Your task to perform on an android device: check android version Image 0: 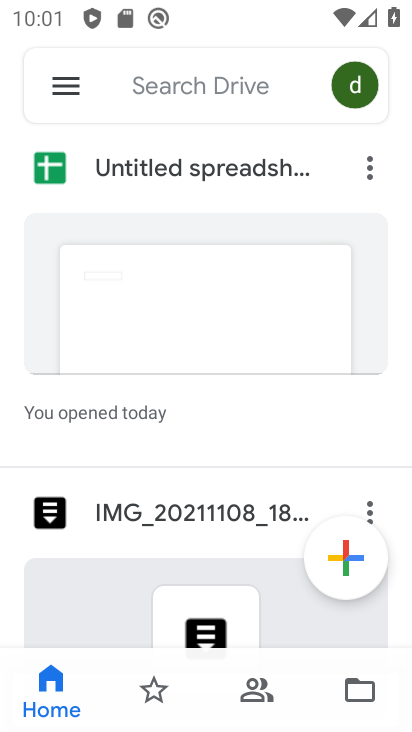
Step 0: press home button
Your task to perform on an android device: check android version Image 1: 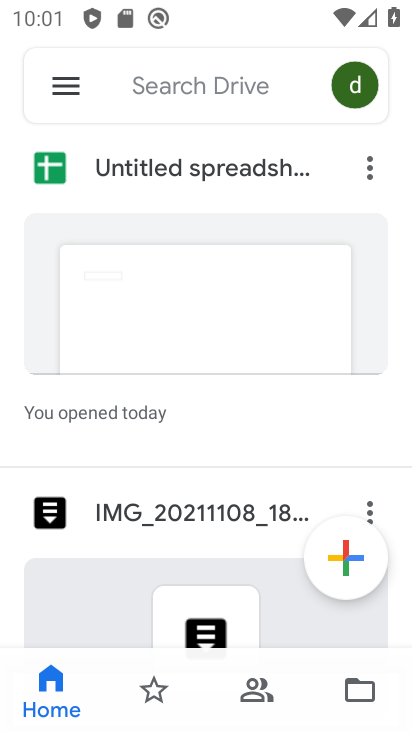
Step 1: press home button
Your task to perform on an android device: check android version Image 2: 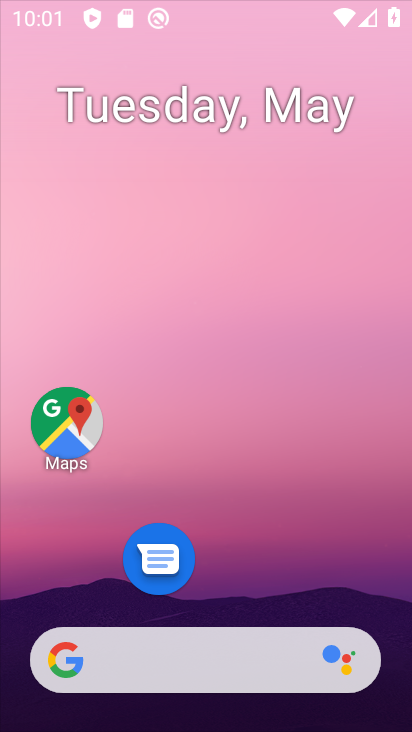
Step 2: press home button
Your task to perform on an android device: check android version Image 3: 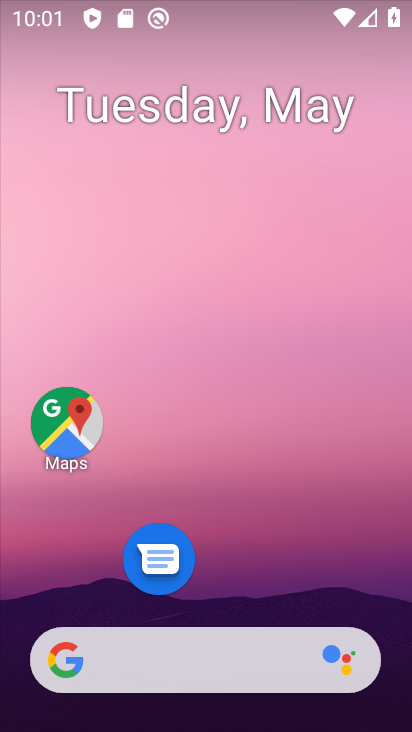
Step 3: drag from (229, 618) to (107, 97)
Your task to perform on an android device: check android version Image 4: 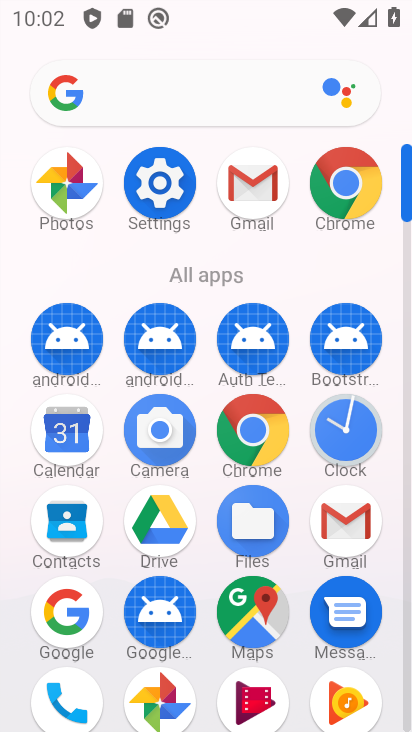
Step 4: click (335, 187)
Your task to perform on an android device: check android version Image 5: 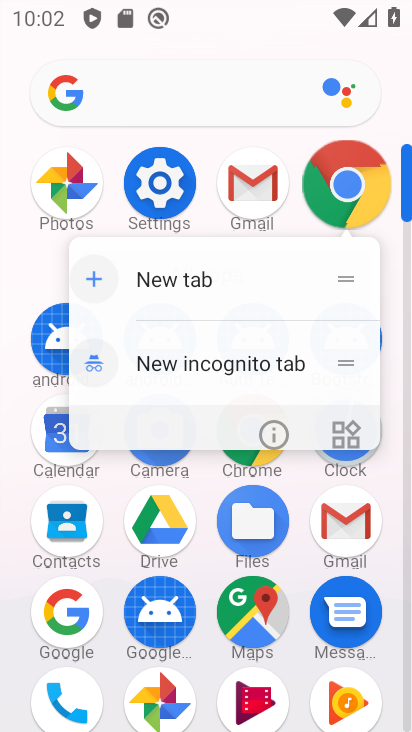
Step 5: click (345, 191)
Your task to perform on an android device: check android version Image 6: 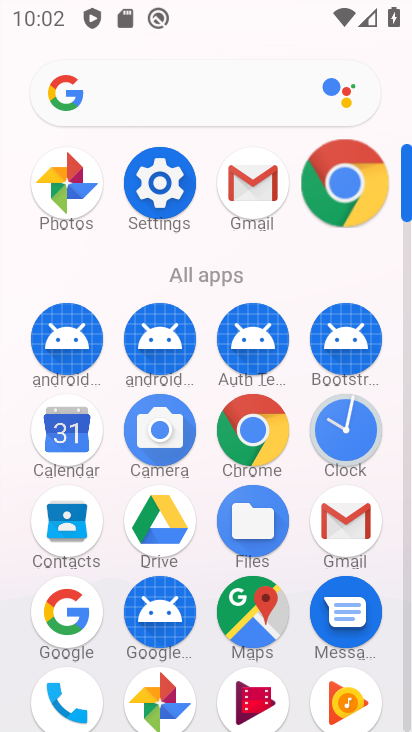
Step 6: click (345, 191)
Your task to perform on an android device: check android version Image 7: 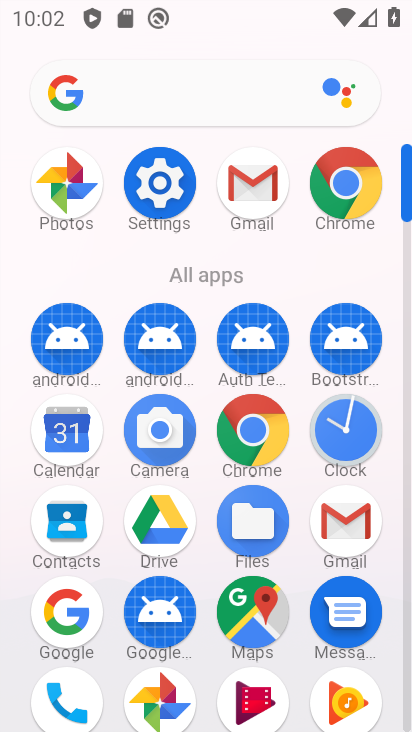
Step 7: click (345, 191)
Your task to perform on an android device: check android version Image 8: 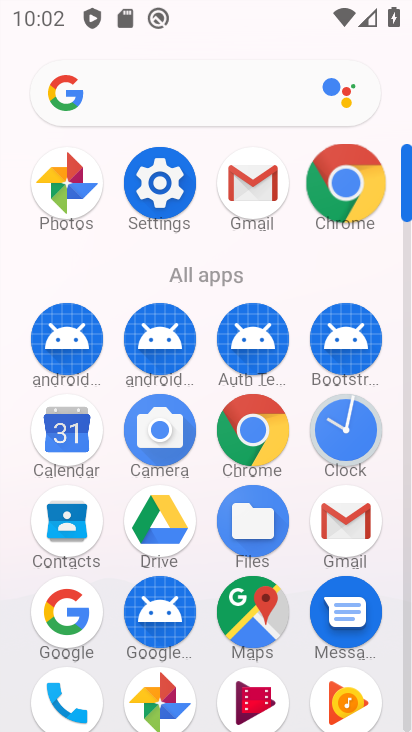
Step 8: click (346, 190)
Your task to perform on an android device: check android version Image 9: 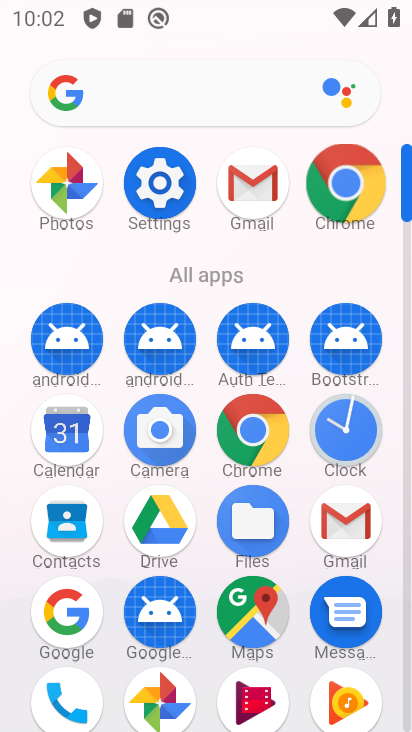
Step 9: click (346, 190)
Your task to perform on an android device: check android version Image 10: 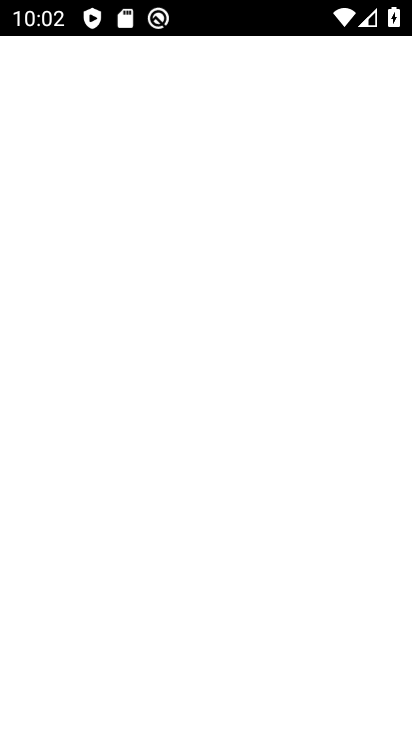
Step 10: click (345, 189)
Your task to perform on an android device: check android version Image 11: 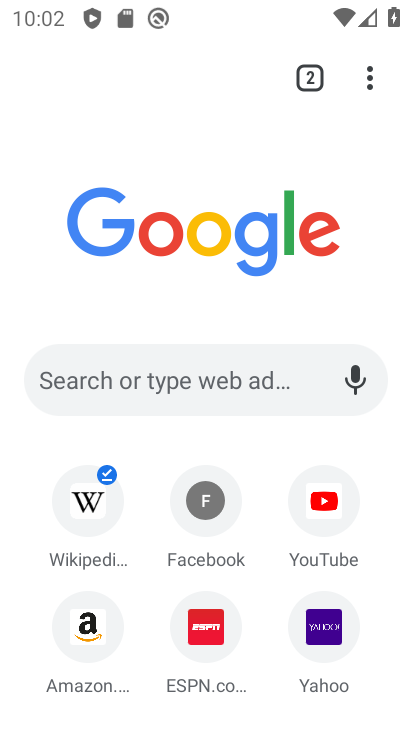
Step 11: press back button
Your task to perform on an android device: check android version Image 12: 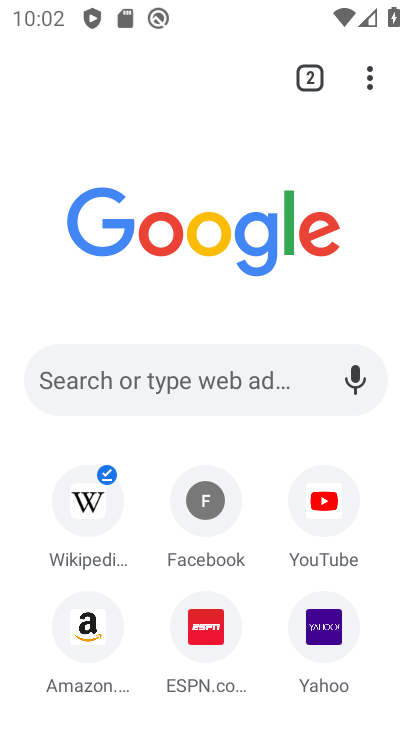
Step 12: press back button
Your task to perform on an android device: check android version Image 13: 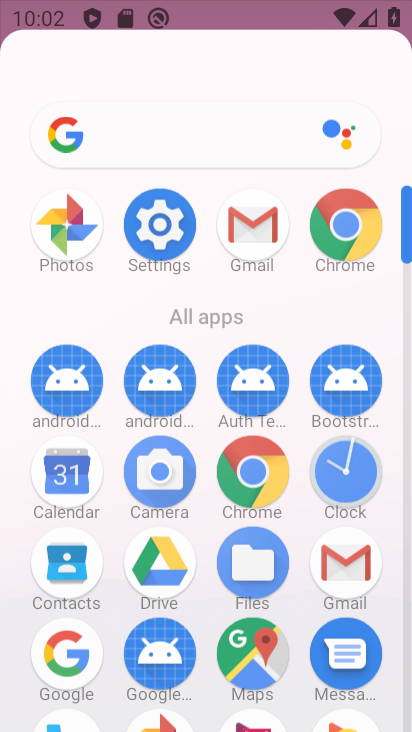
Step 13: press back button
Your task to perform on an android device: check android version Image 14: 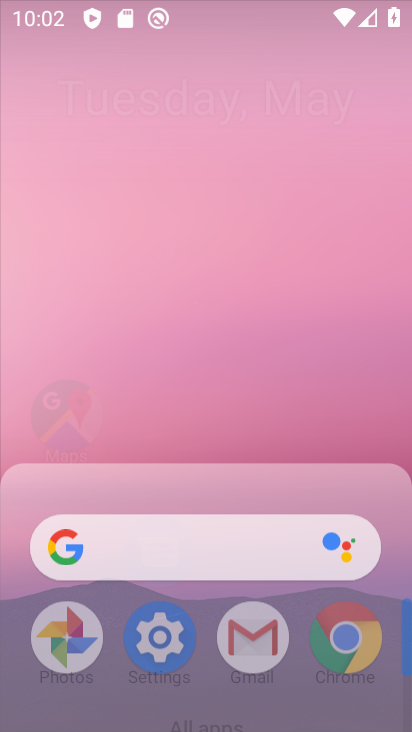
Step 14: drag from (263, 610) to (231, 52)
Your task to perform on an android device: check android version Image 15: 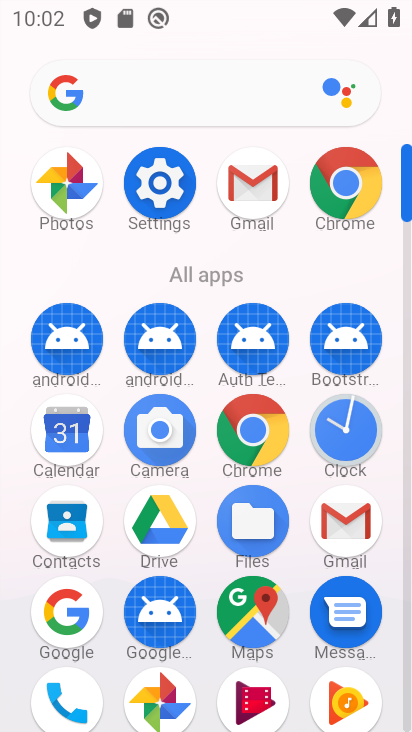
Step 15: drag from (300, 645) to (230, 95)
Your task to perform on an android device: check android version Image 16: 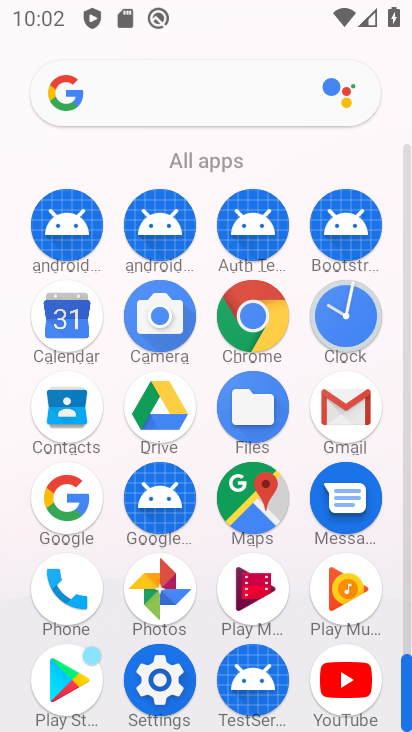
Step 16: click (154, 684)
Your task to perform on an android device: check android version Image 17: 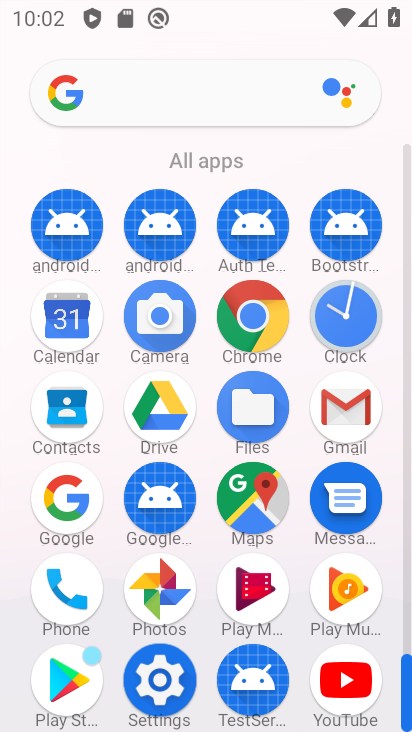
Step 17: click (156, 681)
Your task to perform on an android device: check android version Image 18: 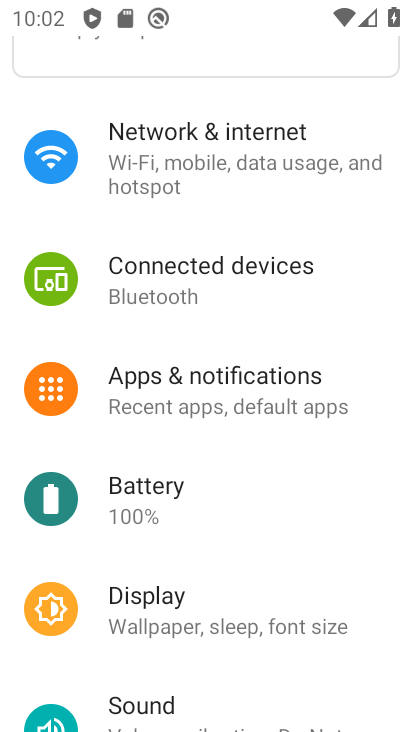
Step 18: drag from (241, 615) to (181, 108)
Your task to perform on an android device: check android version Image 19: 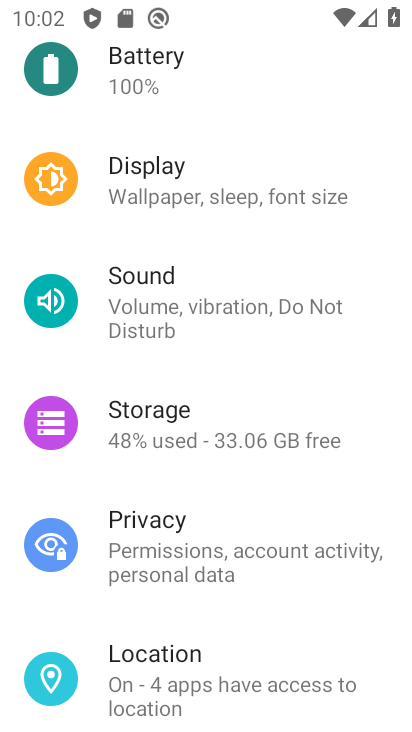
Step 19: drag from (230, 443) to (177, 8)
Your task to perform on an android device: check android version Image 20: 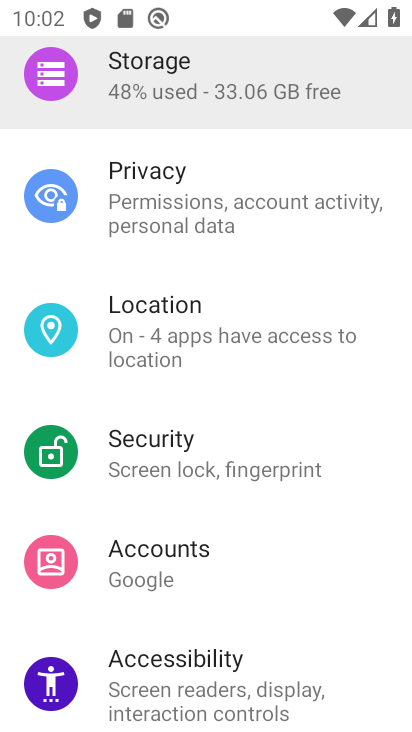
Step 20: drag from (203, 483) to (199, 53)
Your task to perform on an android device: check android version Image 21: 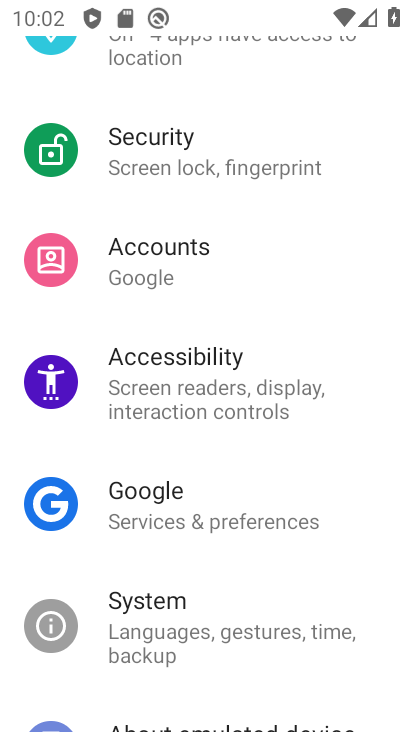
Step 21: drag from (229, 524) to (209, 19)
Your task to perform on an android device: check android version Image 22: 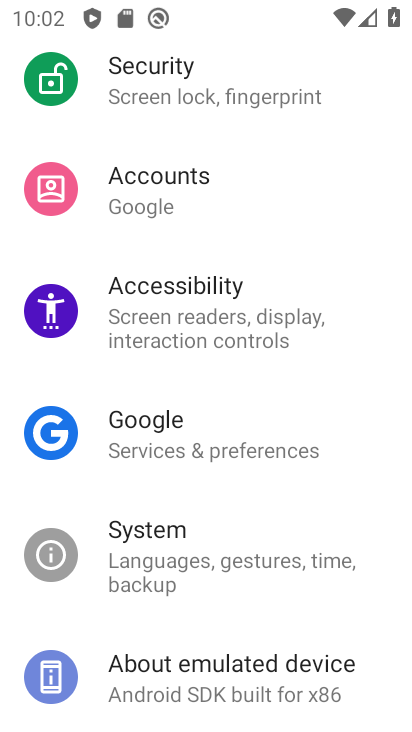
Step 22: drag from (278, 602) to (254, 71)
Your task to perform on an android device: check android version Image 23: 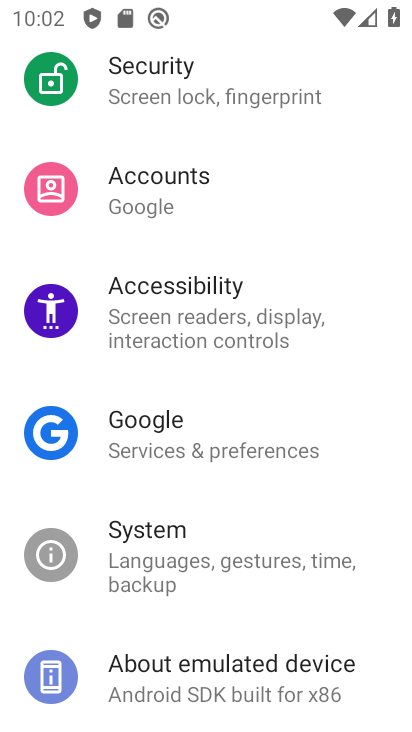
Step 23: drag from (277, 446) to (220, 80)
Your task to perform on an android device: check android version Image 24: 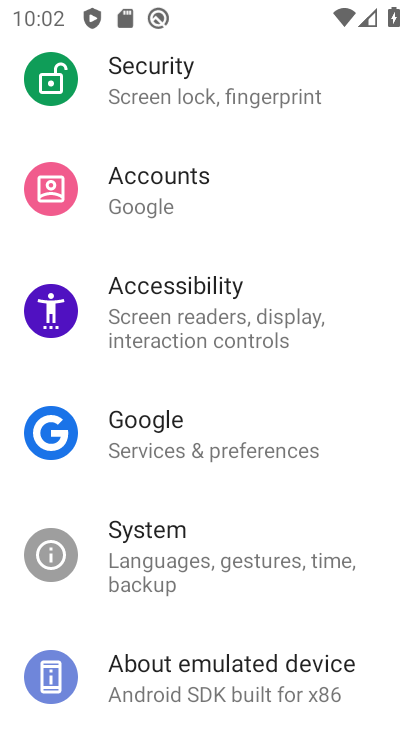
Step 24: click (181, 697)
Your task to perform on an android device: check android version Image 25: 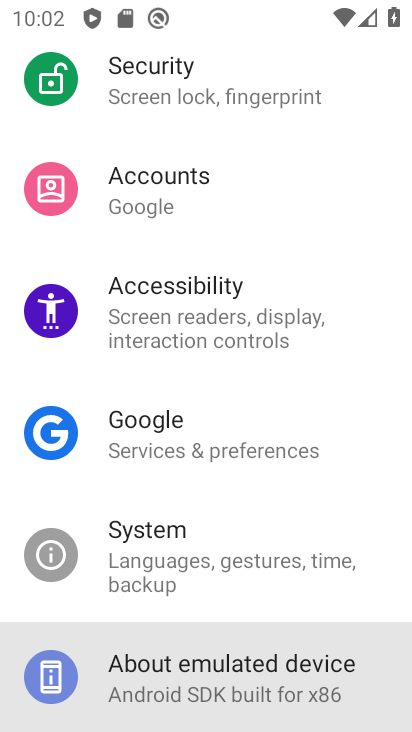
Step 25: click (179, 684)
Your task to perform on an android device: check android version Image 26: 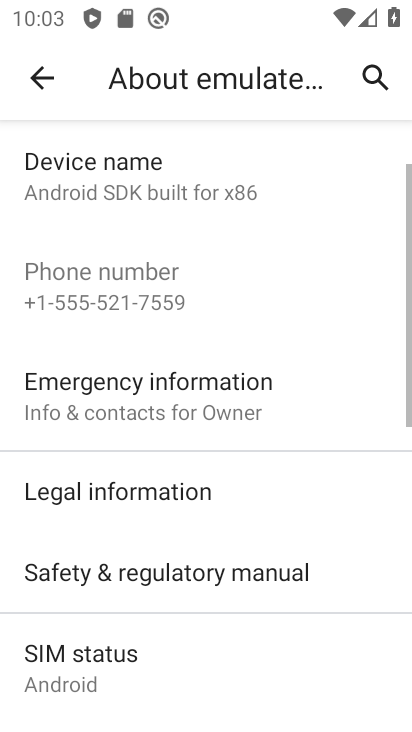
Step 26: task complete